Your task to perform on an android device: Go to privacy settings Image 0: 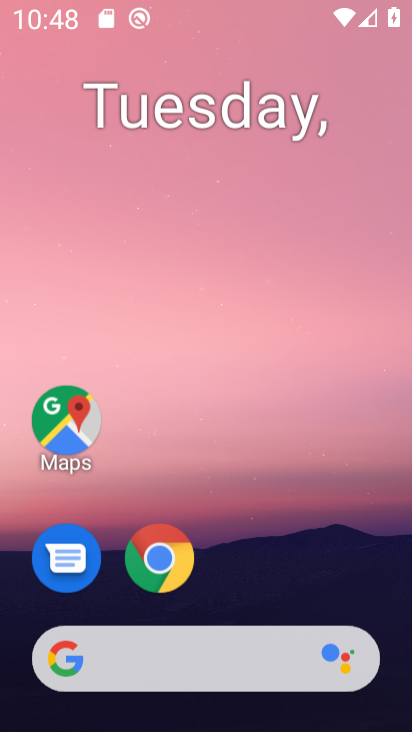
Step 0: press home button
Your task to perform on an android device: Go to privacy settings Image 1: 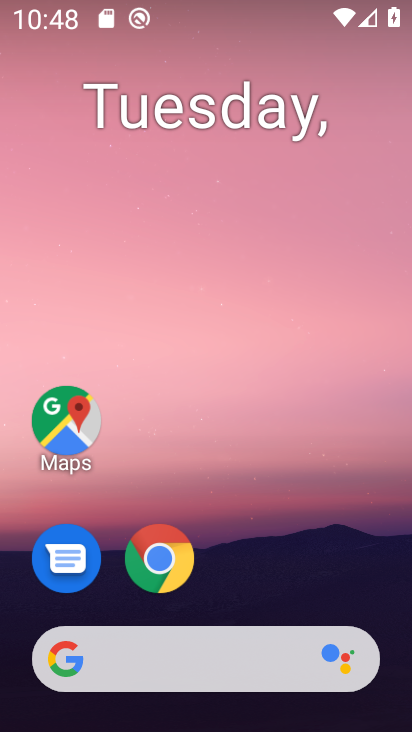
Step 1: drag from (350, 573) to (341, 107)
Your task to perform on an android device: Go to privacy settings Image 2: 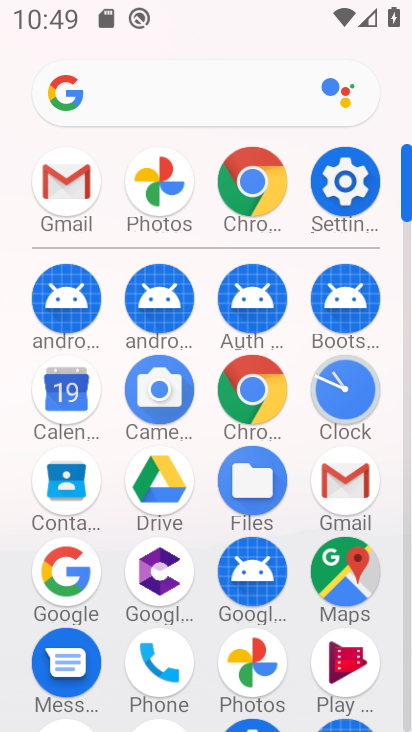
Step 2: click (349, 192)
Your task to perform on an android device: Go to privacy settings Image 3: 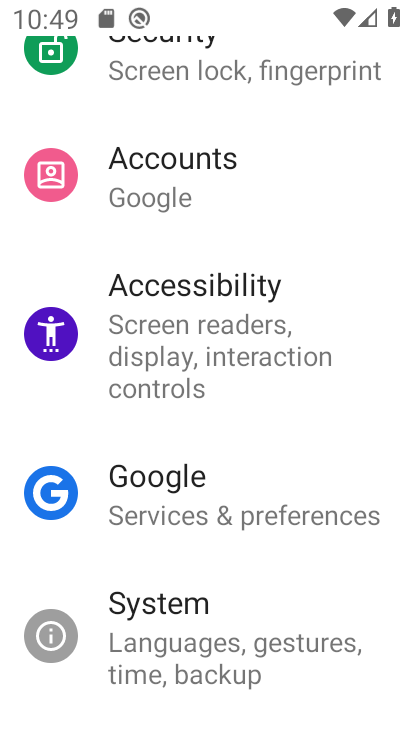
Step 3: drag from (378, 305) to (377, 442)
Your task to perform on an android device: Go to privacy settings Image 4: 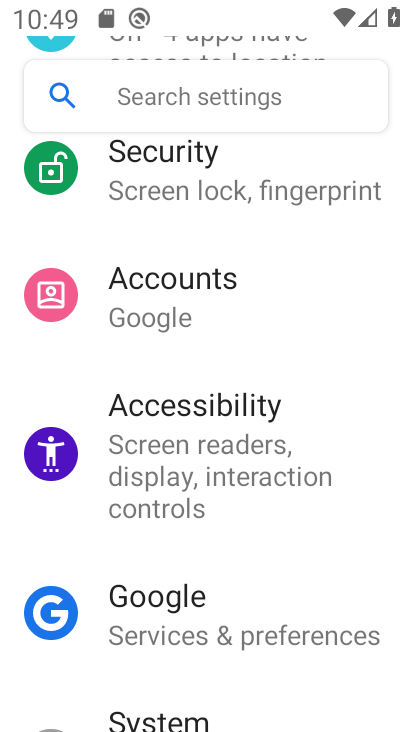
Step 4: drag from (348, 333) to (352, 496)
Your task to perform on an android device: Go to privacy settings Image 5: 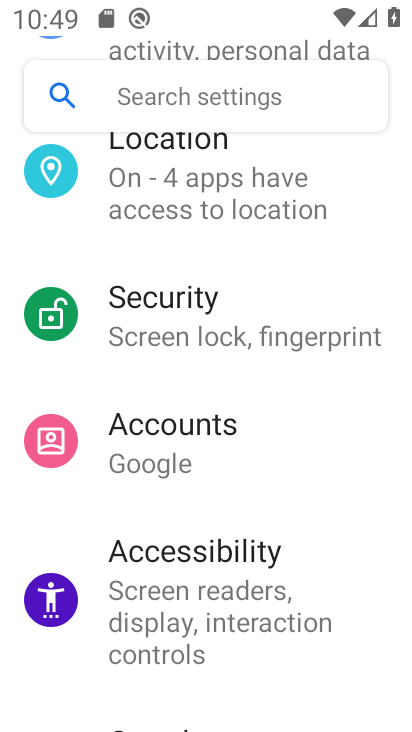
Step 5: drag from (352, 400) to (364, 553)
Your task to perform on an android device: Go to privacy settings Image 6: 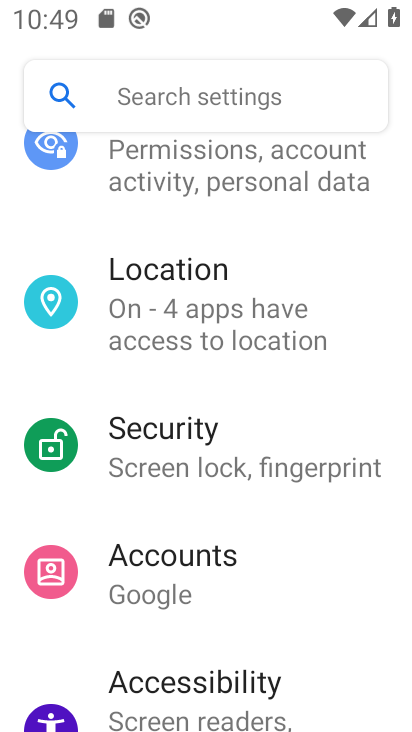
Step 6: drag from (353, 373) to (352, 531)
Your task to perform on an android device: Go to privacy settings Image 7: 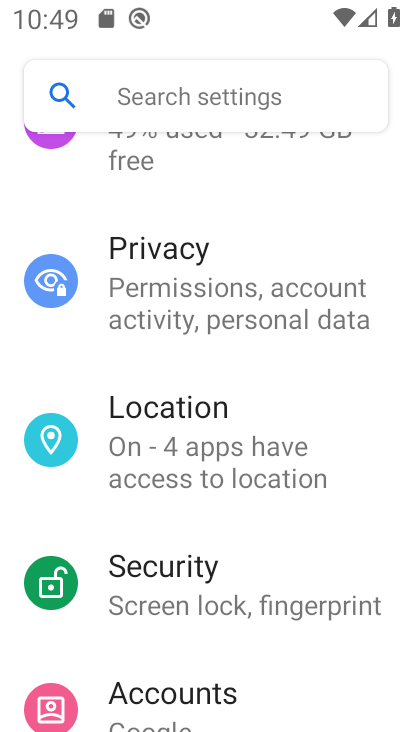
Step 7: drag from (355, 382) to (356, 518)
Your task to perform on an android device: Go to privacy settings Image 8: 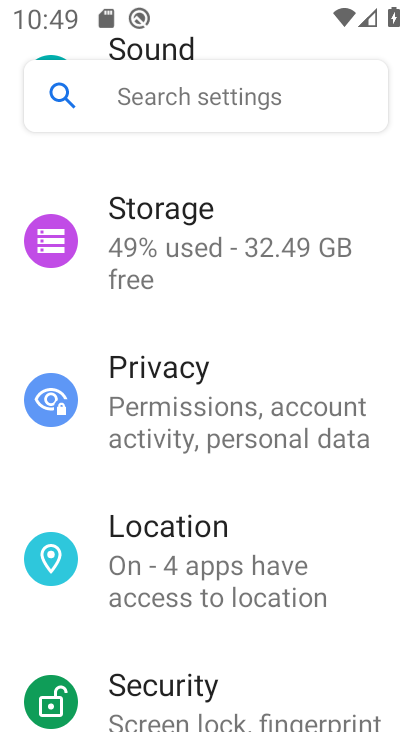
Step 8: click (337, 399)
Your task to perform on an android device: Go to privacy settings Image 9: 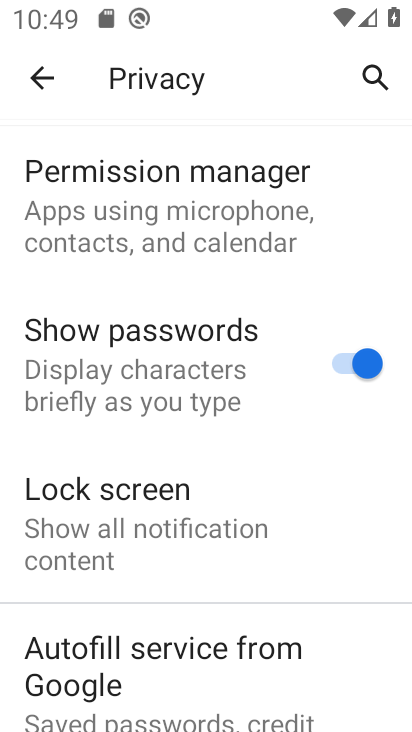
Step 9: task complete